Your task to perform on an android device: change timer sound Image 0: 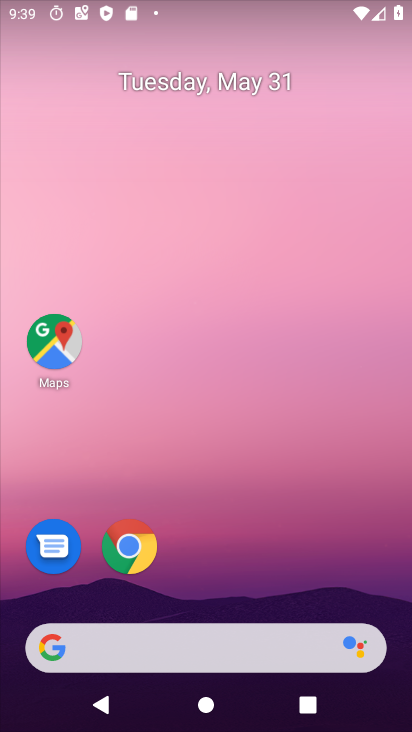
Step 0: drag from (239, 538) to (268, 3)
Your task to perform on an android device: change timer sound Image 1: 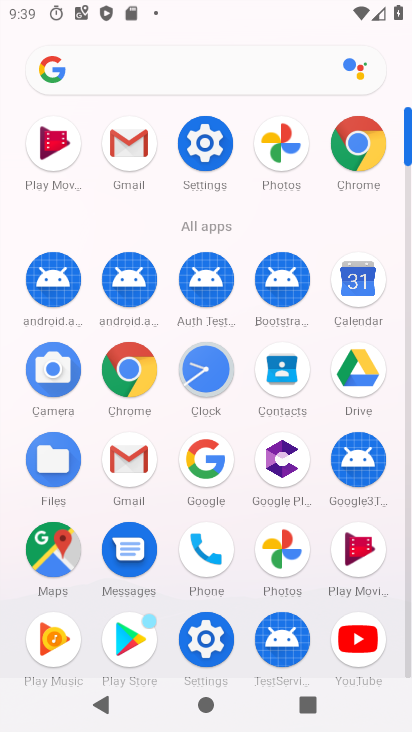
Step 1: click (209, 356)
Your task to perform on an android device: change timer sound Image 2: 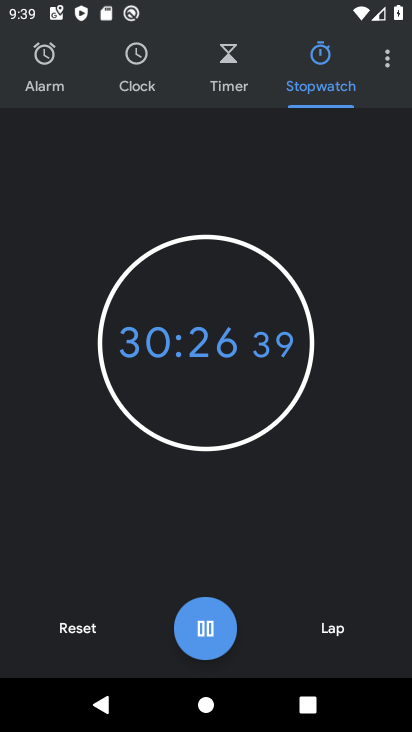
Step 2: click (390, 60)
Your task to perform on an android device: change timer sound Image 3: 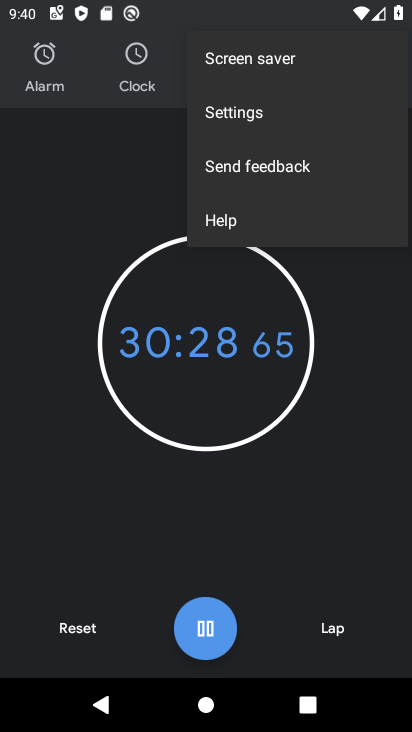
Step 3: click (243, 116)
Your task to perform on an android device: change timer sound Image 4: 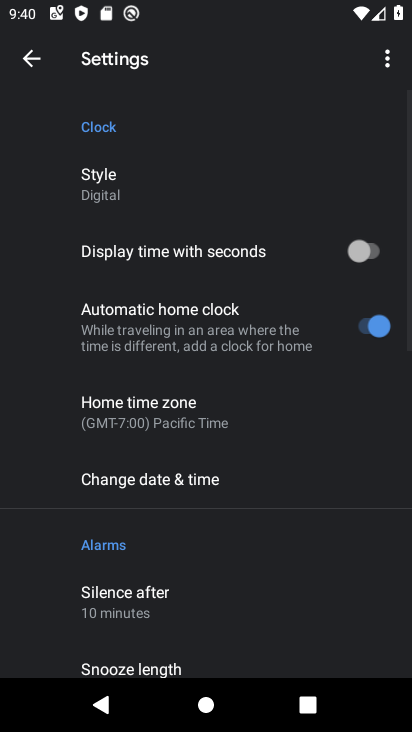
Step 4: drag from (285, 550) to (239, 189)
Your task to perform on an android device: change timer sound Image 5: 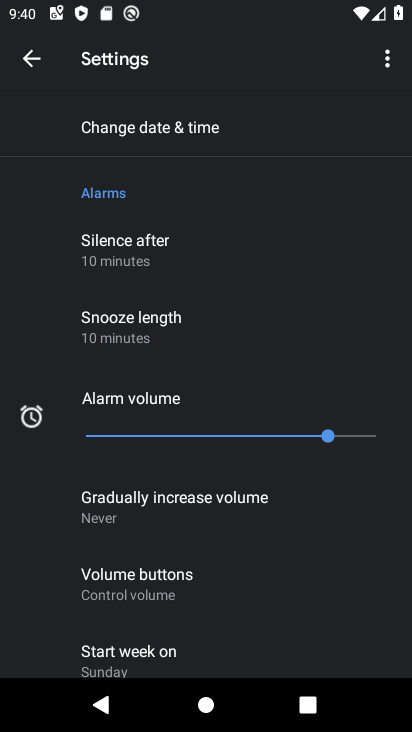
Step 5: drag from (246, 560) to (254, 198)
Your task to perform on an android device: change timer sound Image 6: 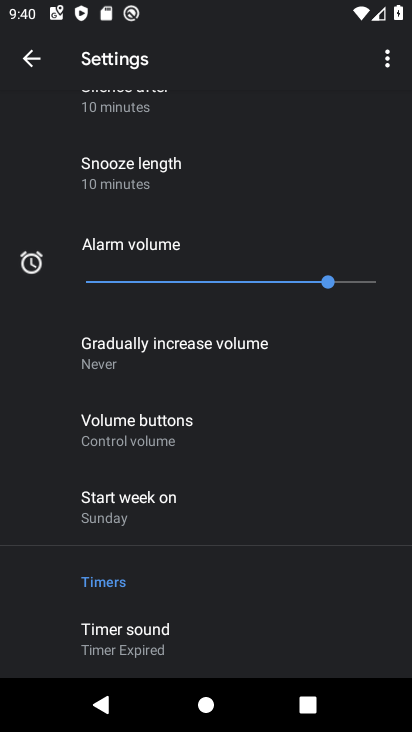
Step 6: drag from (211, 623) to (221, 278)
Your task to perform on an android device: change timer sound Image 7: 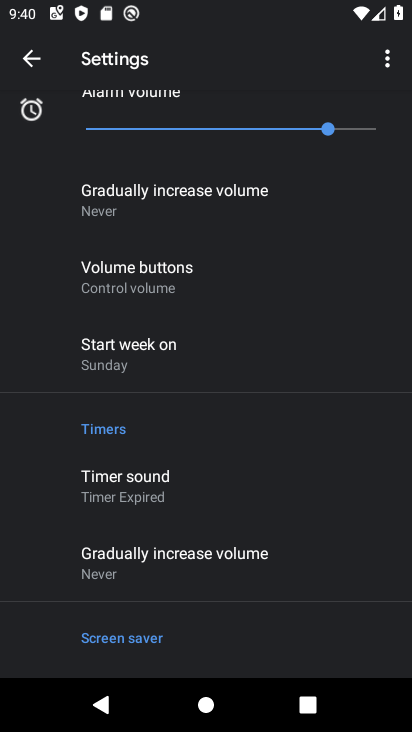
Step 7: click (125, 477)
Your task to perform on an android device: change timer sound Image 8: 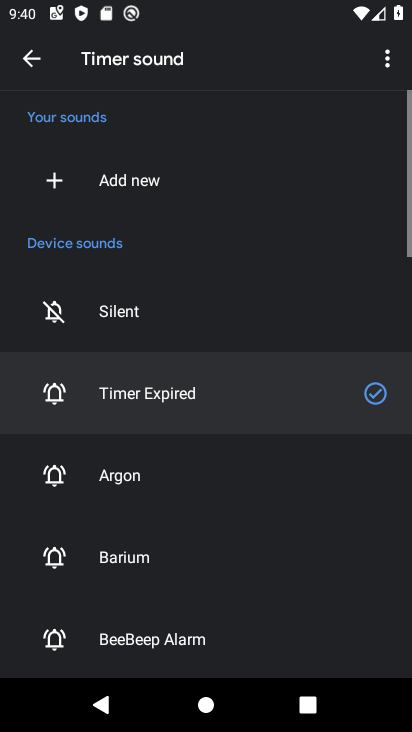
Step 8: click (104, 490)
Your task to perform on an android device: change timer sound Image 9: 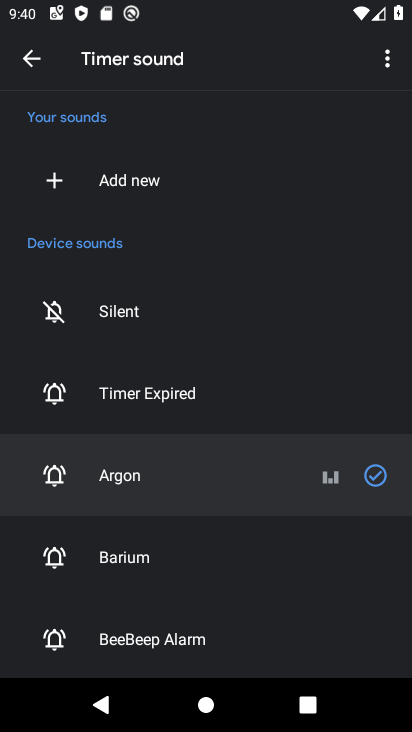
Step 9: task complete